Your task to perform on an android device: open a bookmark in the chrome app Image 0: 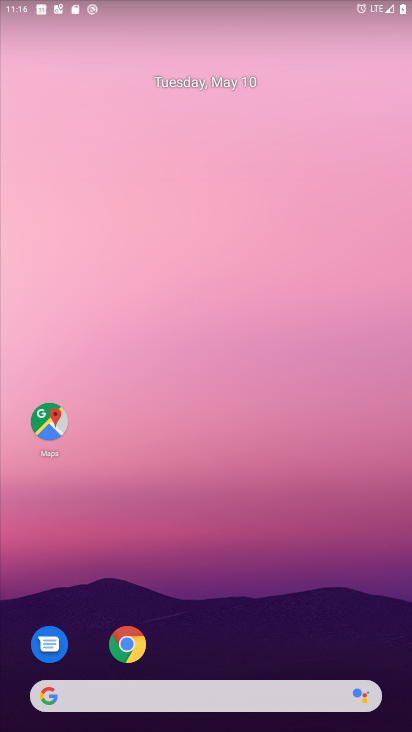
Step 0: drag from (164, 711) to (203, 257)
Your task to perform on an android device: open a bookmark in the chrome app Image 1: 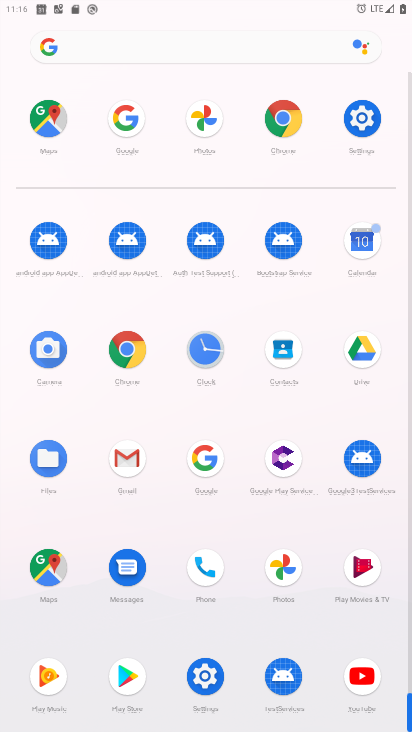
Step 1: click (285, 120)
Your task to perform on an android device: open a bookmark in the chrome app Image 2: 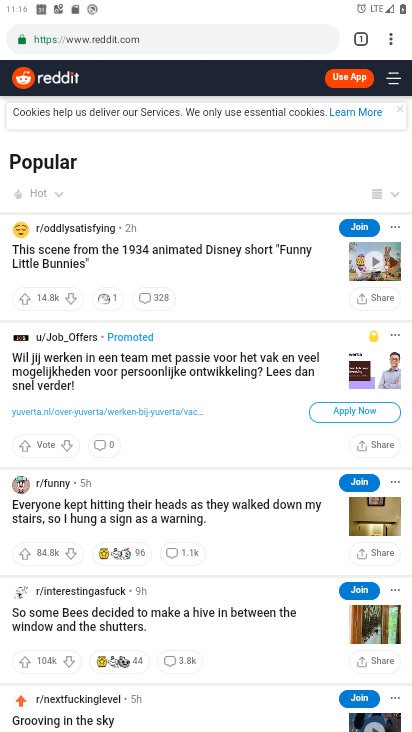
Step 2: click (392, 43)
Your task to perform on an android device: open a bookmark in the chrome app Image 3: 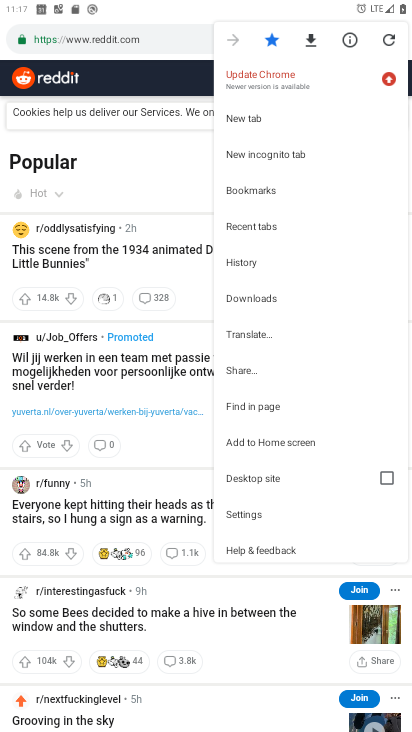
Step 3: click (269, 186)
Your task to perform on an android device: open a bookmark in the chrome app Image 4: 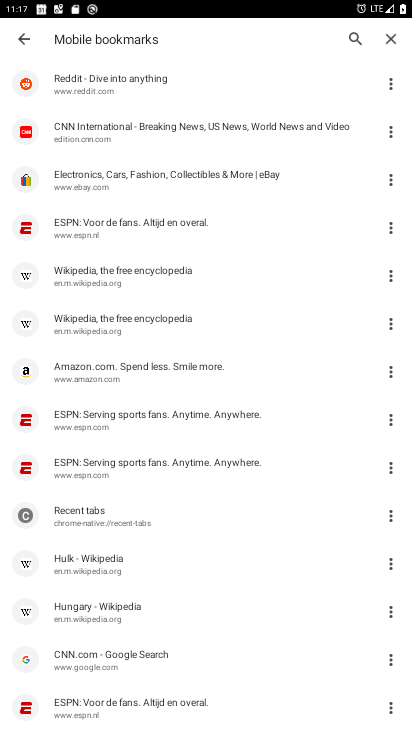
Step 4: click (186, 573)
Your task to perform on an android device: open a bookmark in the chrome app Image 5: 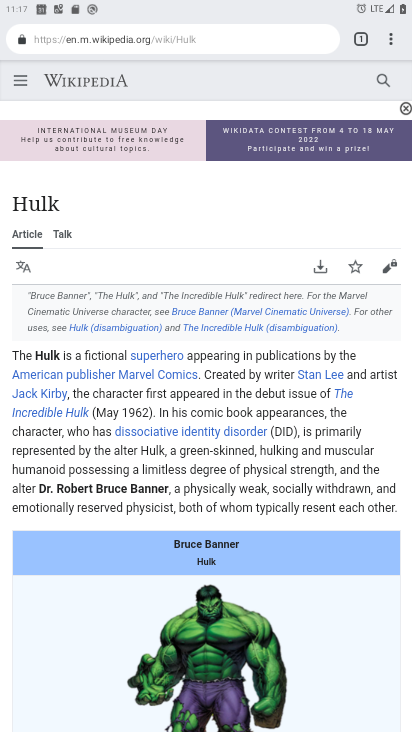
Step 5: task complete